Your task to perform on an android device: turn pop-ups on in chrome Image 0: 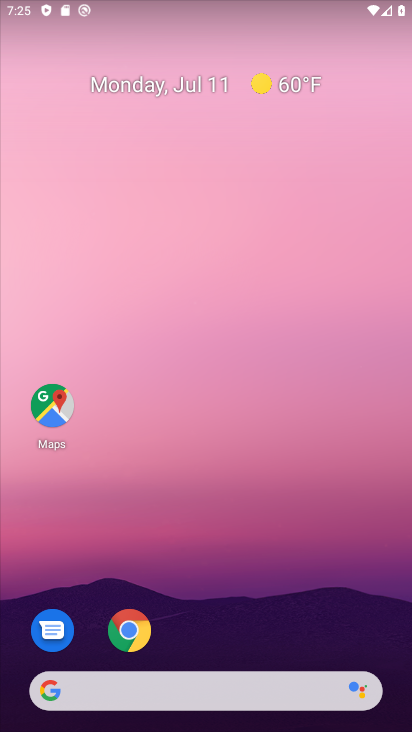
Step 0: click (125, 632)
Your task to perform on an android device: turn pop-ups on in chrome Image 1: 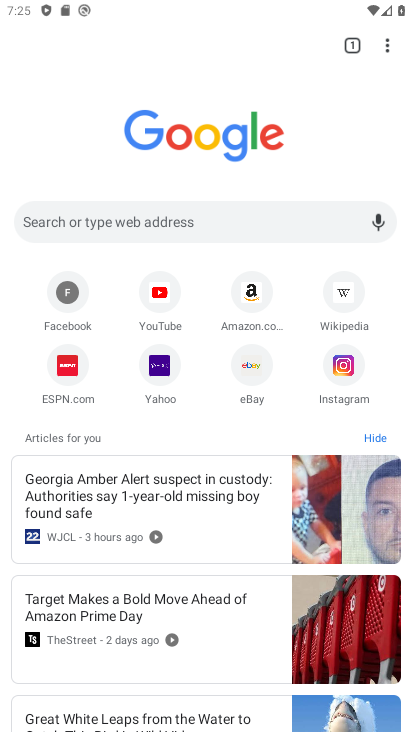
Step 1: click (383, 49)
Your task to perform on an android device: turn pop-ups on in chrome Image 2: 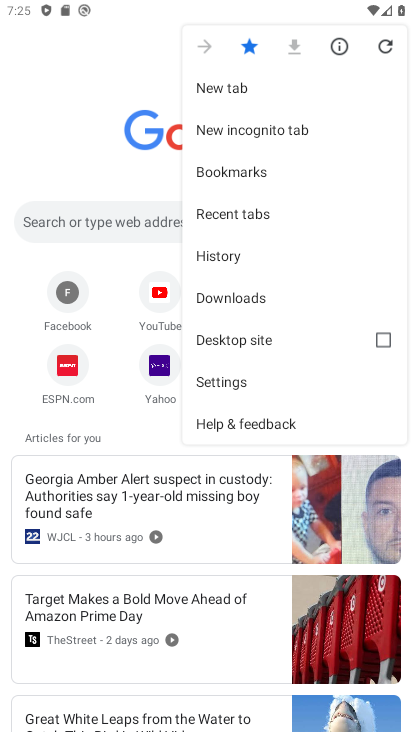
Step 2: click (225, 382)
Your task to perform on an android device: turn pop-ups on in chrome Image 3: 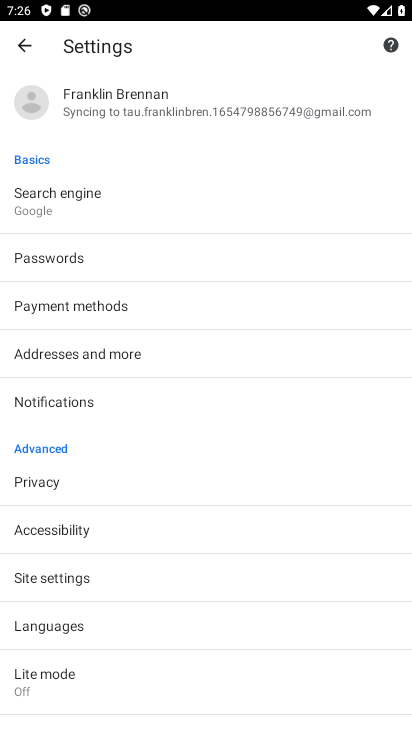
Step 3: click (49, 583)
Your task to perform on an android device: turn pop-ups on in chrome Image 4: 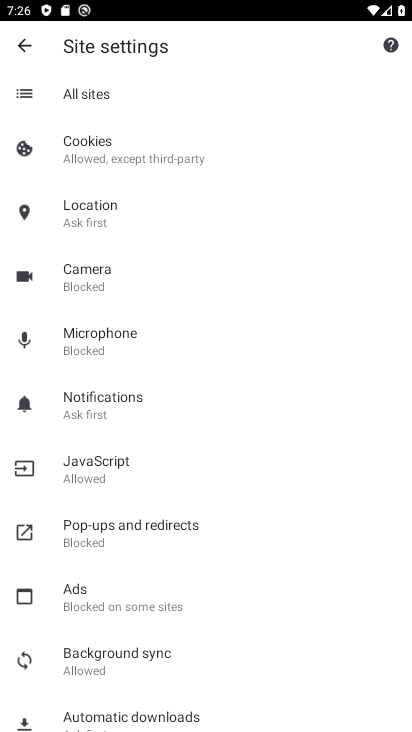
Step 4: click (93, 533)
Your task to perform on an android device: turn pop-ups on in chrome Image 5: 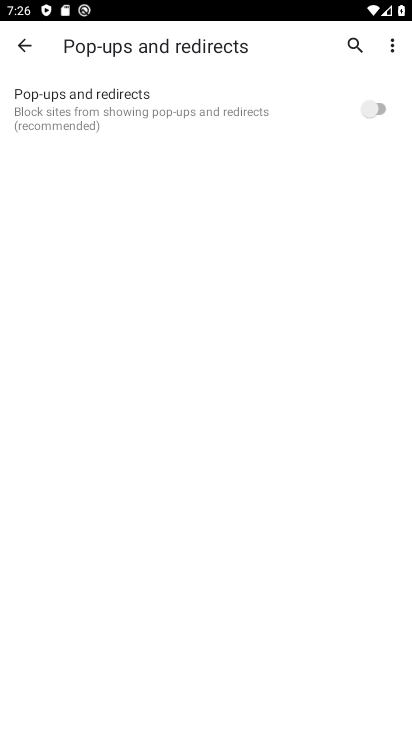
Step 5: click (381, 109)
Your task to perform on an android device: turn pop-ups on in chrome Image 6: 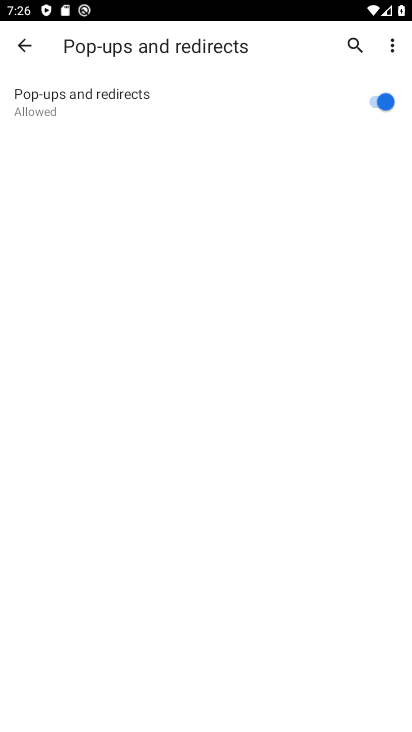
Step 6: task complete